Your task to perform on an android device: toggle pop-ups in chrome Image 0: 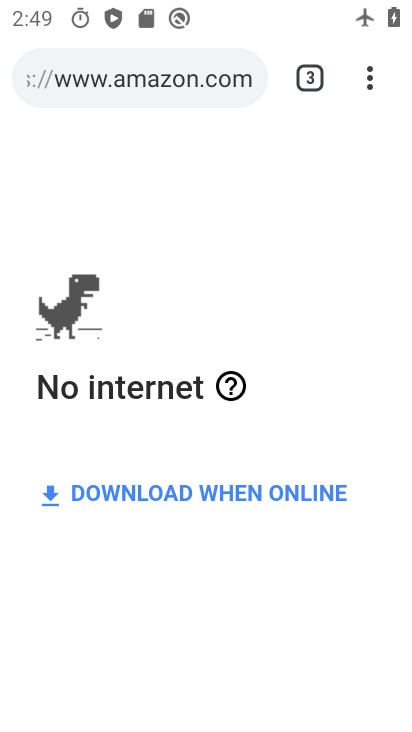
Step 0: click (371, 81)
Your task to perform on an android device: toggle pop-ups in chrome Image 1: 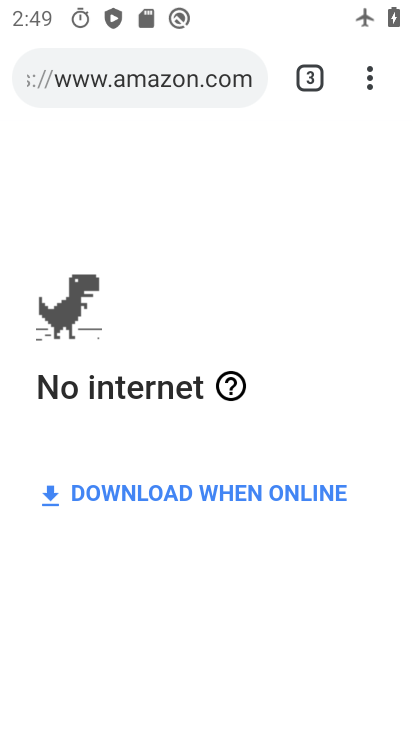
Step 1: drag from (370, 73) to (100, 616)
Your task to perform on an android device: toggle pop-ups in chrome Image 2: 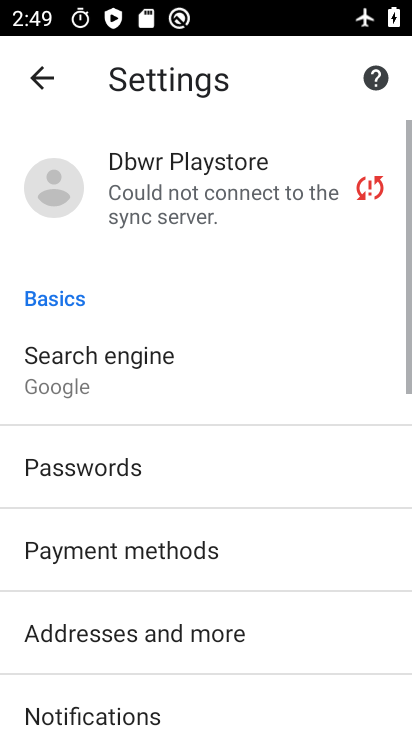
Step 2: drag from (86, 602) to (18, 71)
Your task to perform on an android device: toggle pop-ups in chrome Image 3: 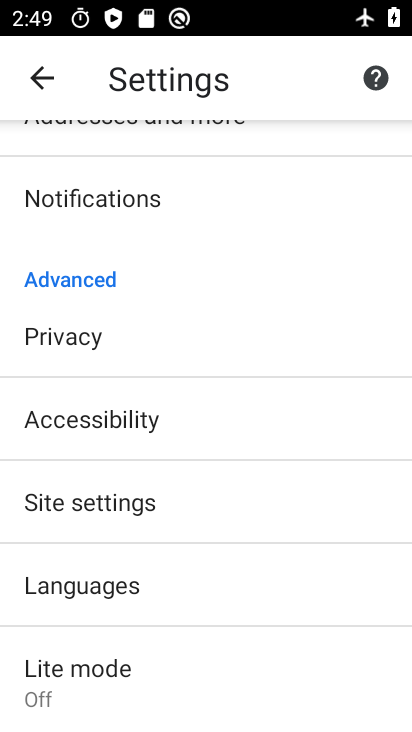
Step 3: click (86, 495)
Your task to perform on an android device: toggle pop-ups in chrome Image 4: 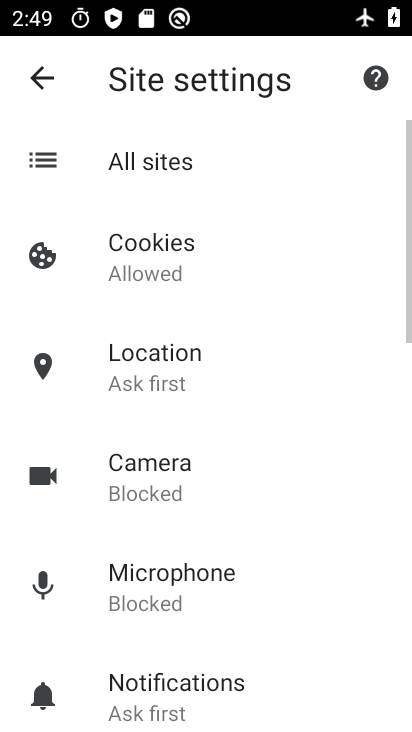
Step 4: drag from (86, 492) to (75, 160)
Your task to perform on an android device: toggle pop-ups in chrome Image 5: 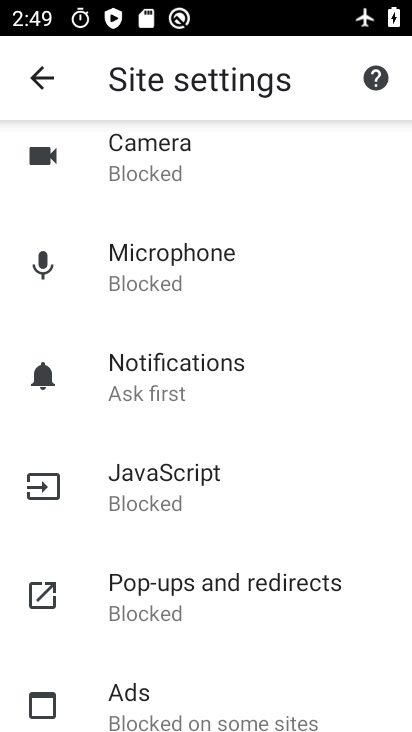
Step 5: click (215, 594)
Your task to perform on an android device: toggle pop-ups in chrome Image 6: 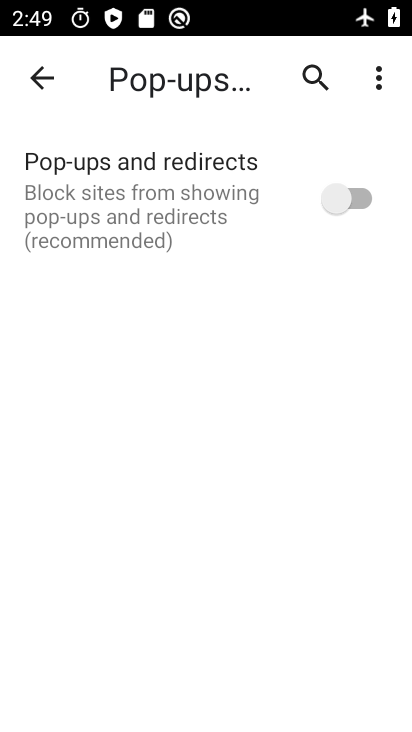
Step 6: click (342, 202)
Your task to perform on an android device: toggle pop-ups in chrome Image 7: 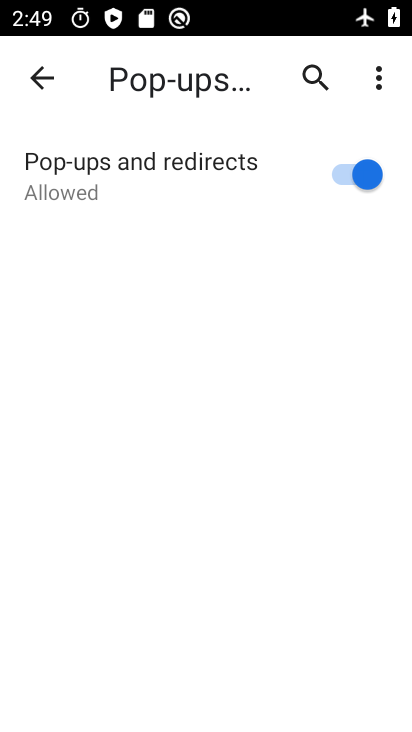
Step 7: task complete